Your task to perform on an android device: Go to notification settings Image 0: 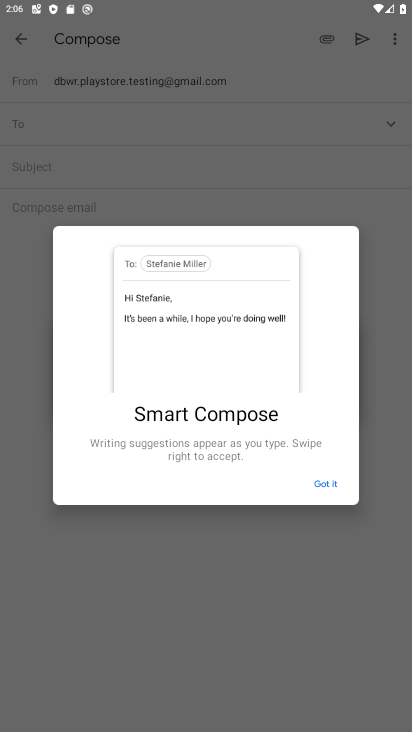
Step 0: press home button
Your task to perform on an android device: Go to notification settings Image 1: 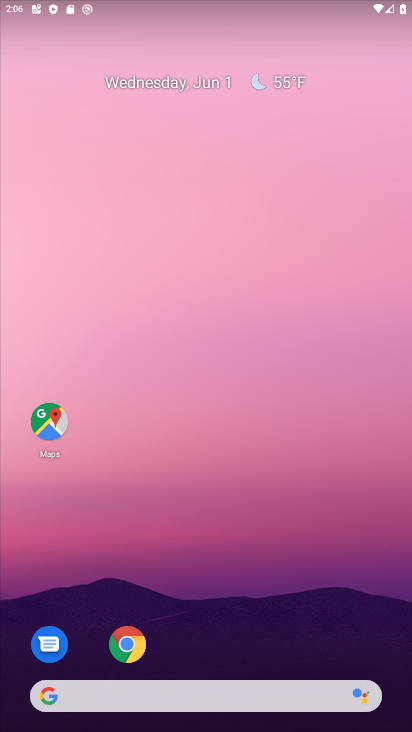
Step 1: drag from (194, 641) to (206, 238)
Your task to perform on an android device: Go to notification settings Image 2: 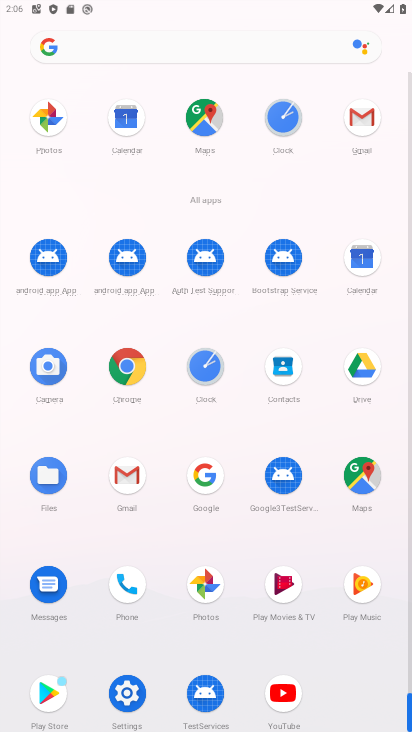
Step 2: click (127, 691)
Your task to perform on an android device: Go to notification settings Image 3: 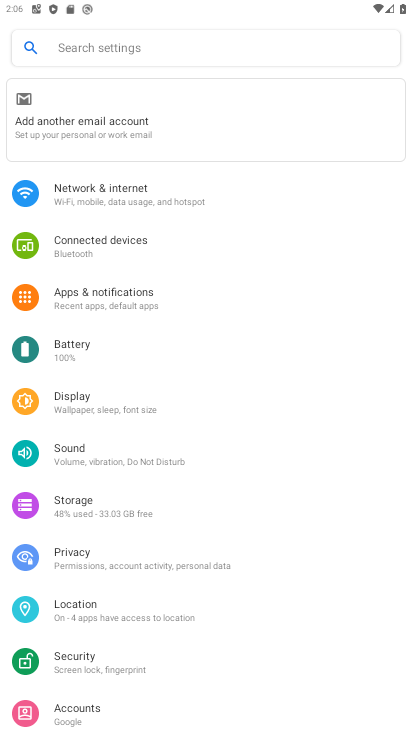
Step 3: click (140, 304)
Your task to perform on an android device: Go to notification settings Image 4: 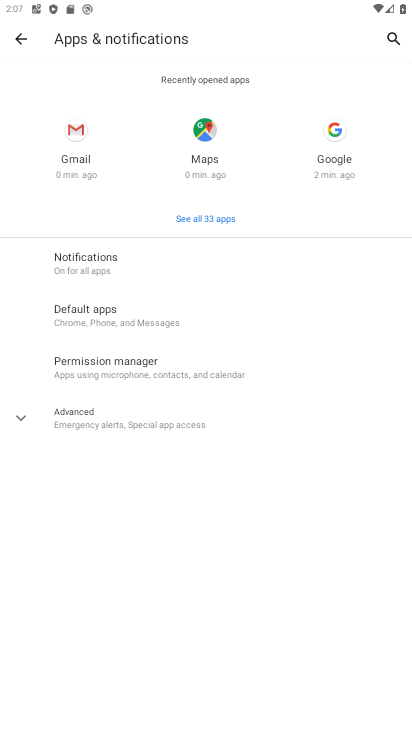
Step 4: task complete